Your task to perform on an android device: empty trash in the gmail app Image 0: 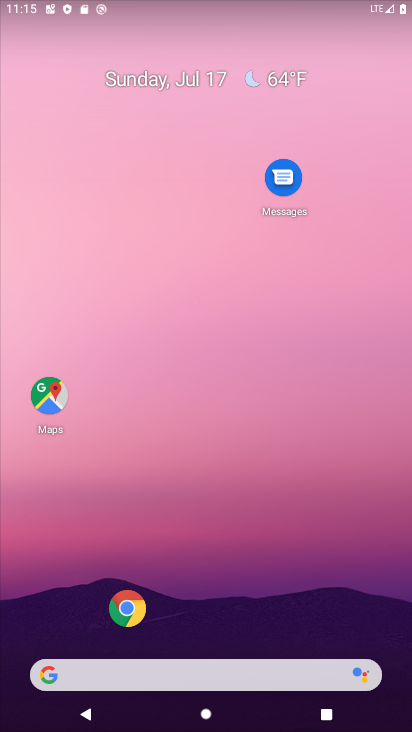
Step 0: drag from (12, 668) to (216, 92)
Your task to perform on an android device: empty trash in the gmail app Image 1: 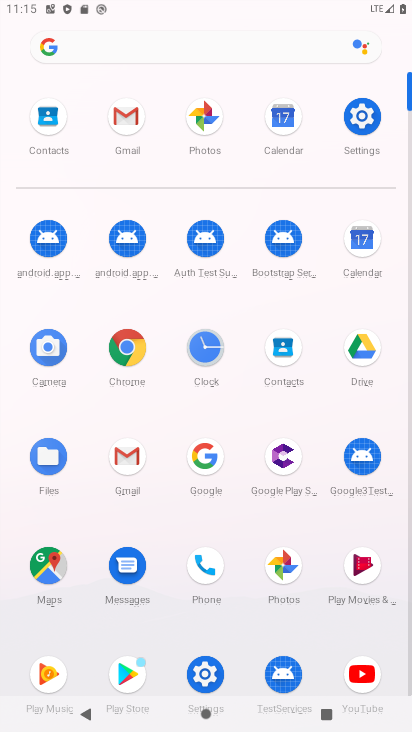
Step 1: click (125, 448)
Your task to perform on an android device: empty trash in the gmail app Image 2: 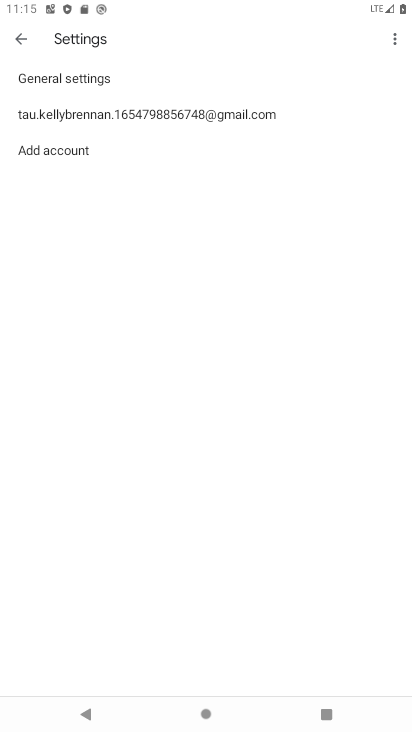
Step 2: click (21, 29)
Your task to perform on an android device: empty trash in the gmail app Image 3: 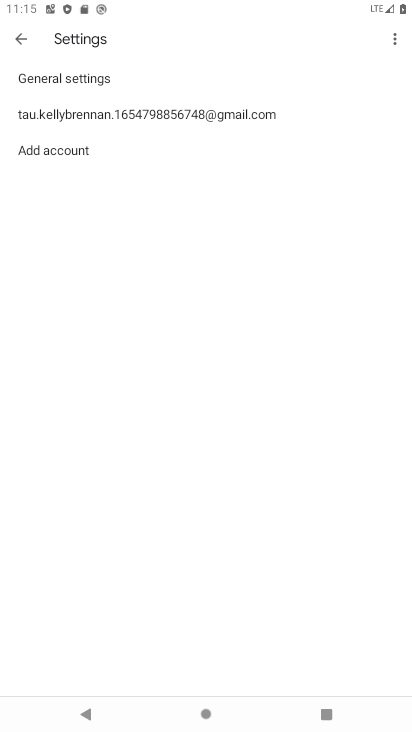
Step 3: click (31, 41)
Your task to perform on an android device: empty trash in the gmail app Image 4: 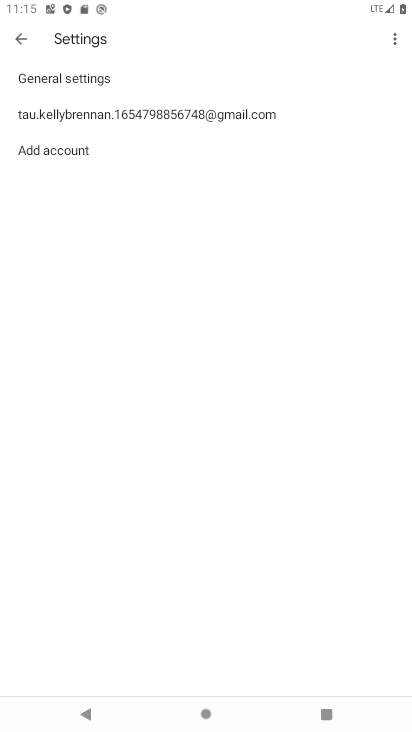
Step 4: press home button
Your task to perform on an android device: empty trash in the gmail app Image 5: 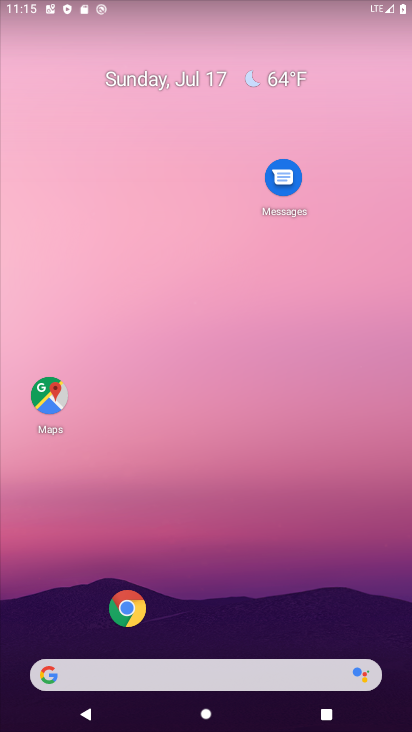
Step 5: drag from (63, 722) to (79, 177)
Your task to perform on an android device: empty trash in the gmail app Image 6: 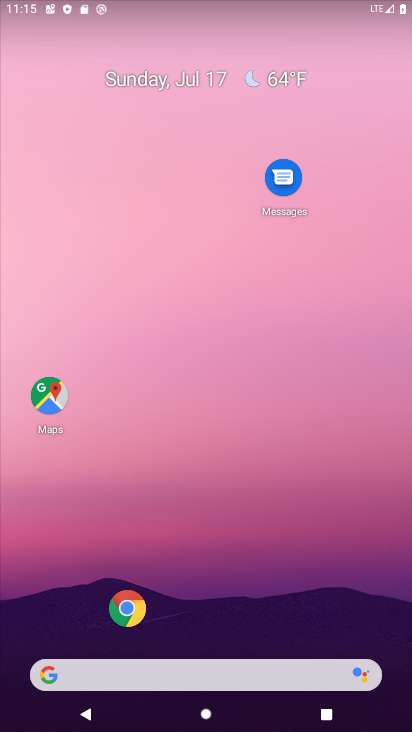
Step 6: click (50, 706)
Your task to perform on an android device: empty trash in the gmail app Image 7: 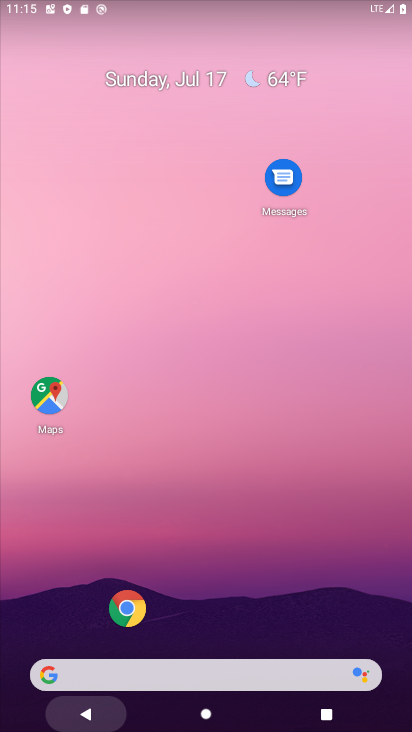
Step 7: drag from (50, 706) to (85, 230)
Your task to perform on an android device: empty trash in the gmail app Image 8: 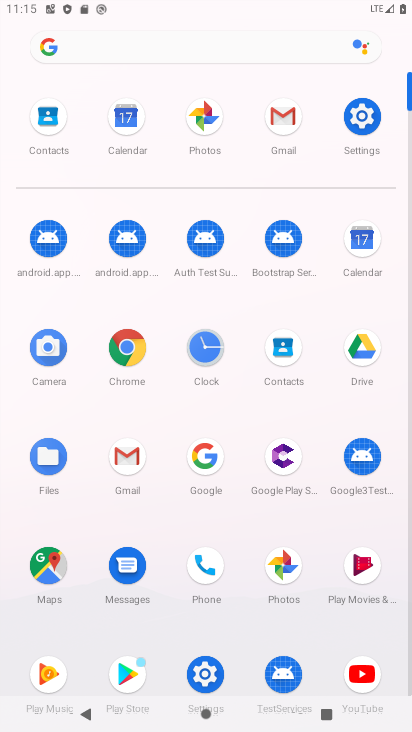
Step 8: click (132, 469)
Your task to perform on an android device: empty trash in the gmail app Image 9: 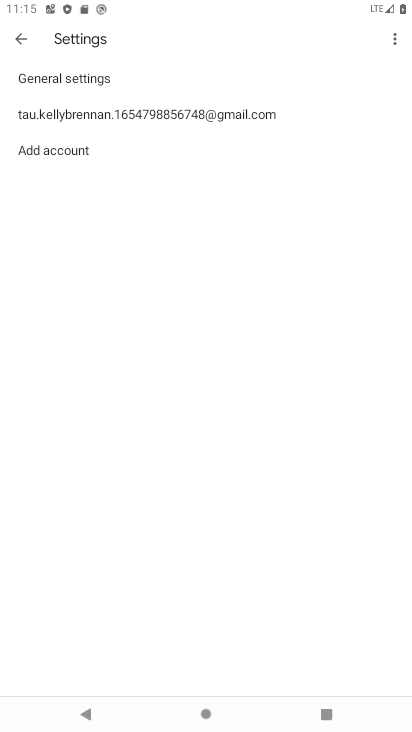
Step 9: click (22, 40)
Your task to perform on an android device: empty trash in the gmail app Image 10: 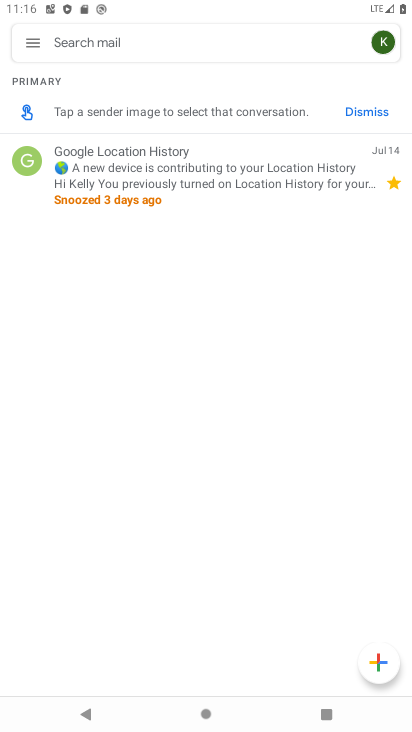
Step 10: click (19, 48)
Your task to perform on an android device: empty trash in the gmail app Image 11: 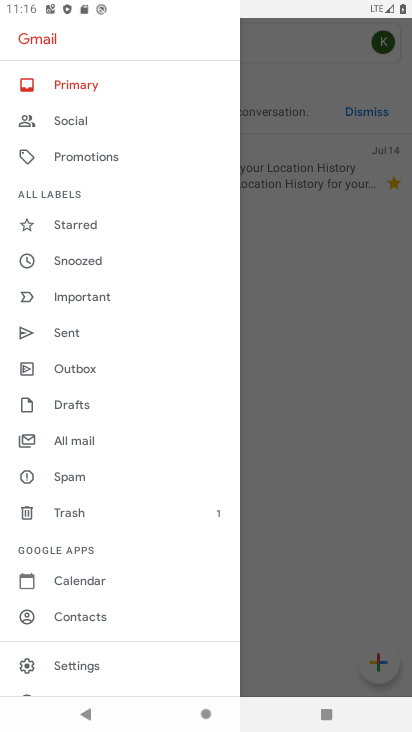
Step 11: click (66, 507)
Your task to perform on an android device: empty trash in the gmail app Image 12: 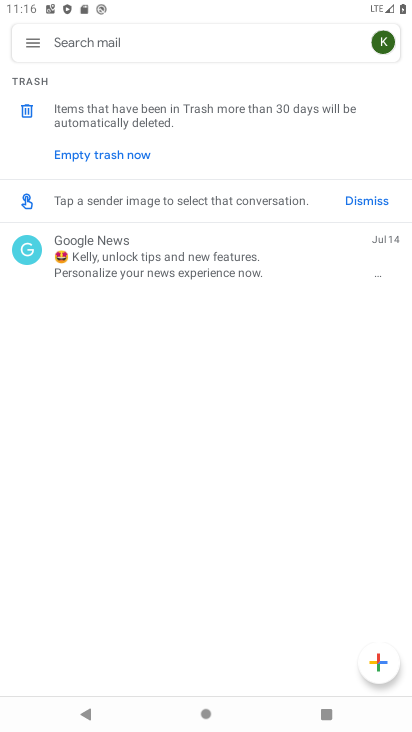
Step 12: task complete